Your task to perform on an android device: empty trash in google photos Image 0: 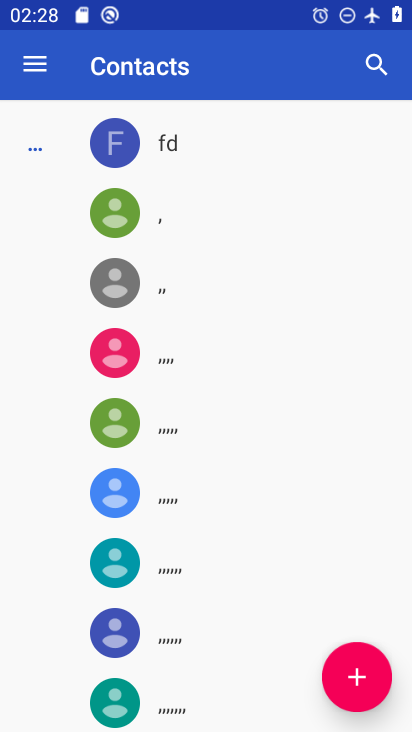
Step 0: press home button
Your task to perform on an android device: empty trash in google photos Image 1: 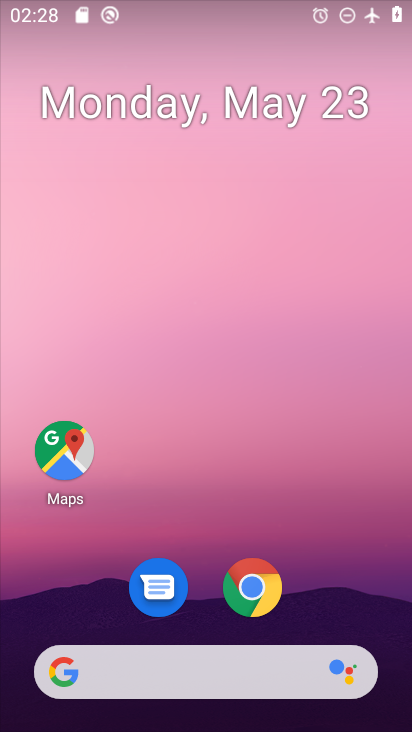
Step 1: drag from (355, 579) to (221, 131)
Your task to perform on an android device: empty trash in google photos Image 2: 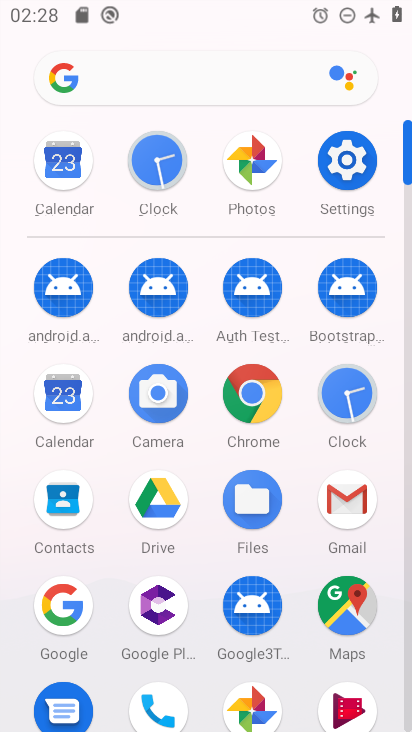
Step 2: click (252, 186)
Your task to perform on an android device: empty trash in google photos Image 3: 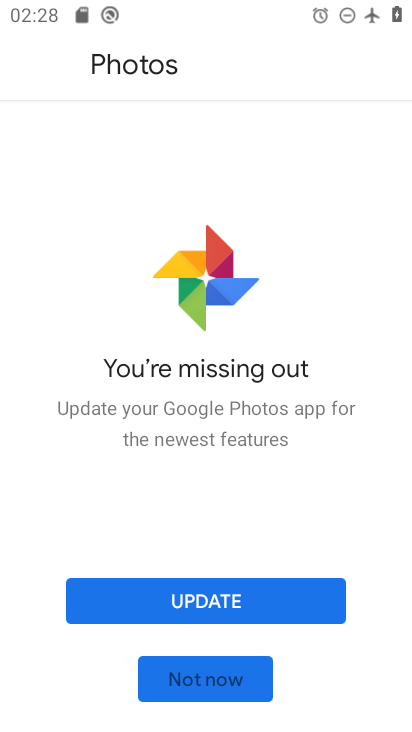
Step 3: click (260, 597)
Your task to perform on an android device: empty trash in google photos Image 4: 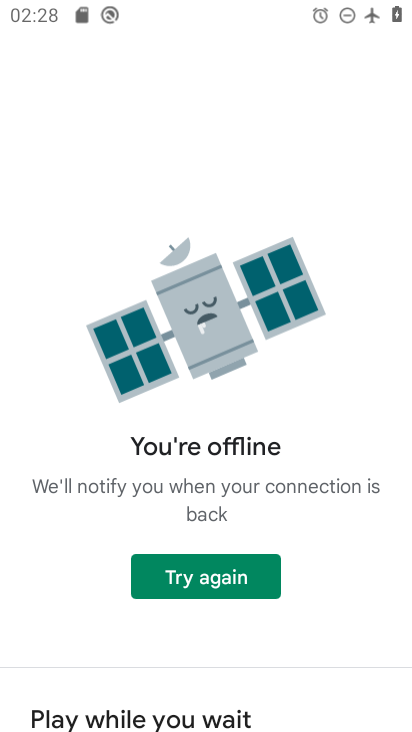
Step 4: task complete